Your task to perform on an android device: turn off priority inbox in the gmail app Image 0: 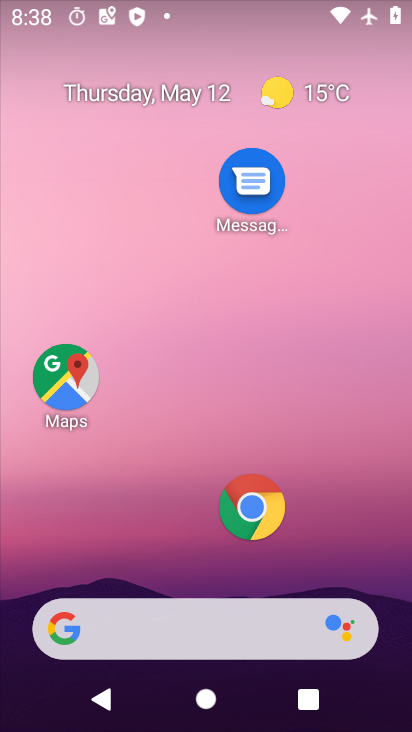
Step 0: drag from (160, 589) to (196, 47)
Your task to perform on an android device: turn off priority inbox in the gmail app Image 1: 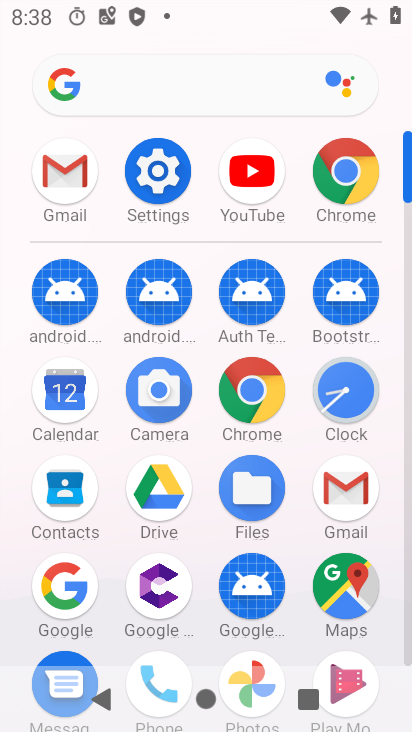
Step 1: click (355, 494)
Your task to perform on an android device: turn off priority inbox in the gmail app Image 2: 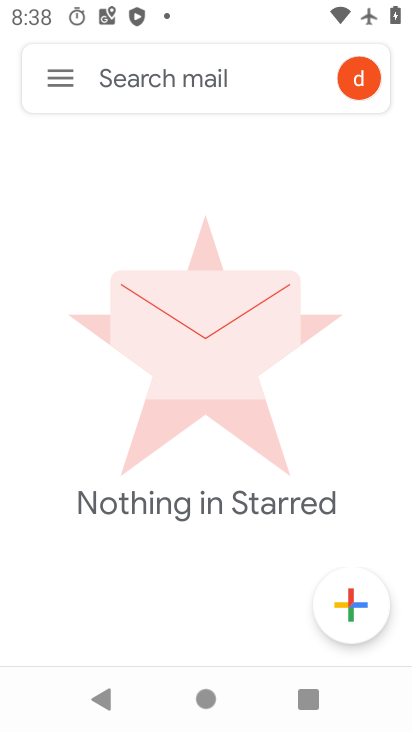
Step 2: click (67, 80)
Your task to perform on an android device: turn off priority inbox in the gmail app Image 3: 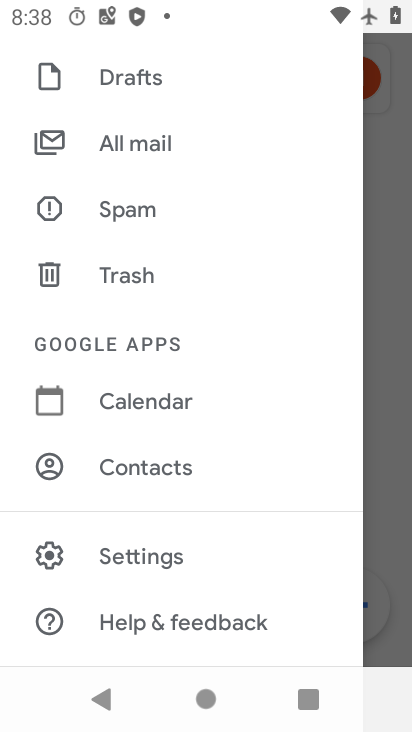
Step 3: click (147, 559)
Your task to perform on an android device: turn off priority inbox in the gmail app Image 4: 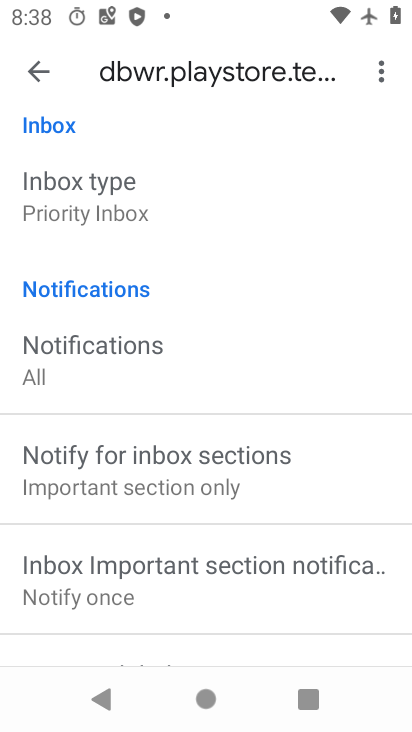
Step 4: click (95, 216)
Your task to perform on an android device: turn off priority inbox in the gmail app Image 5: 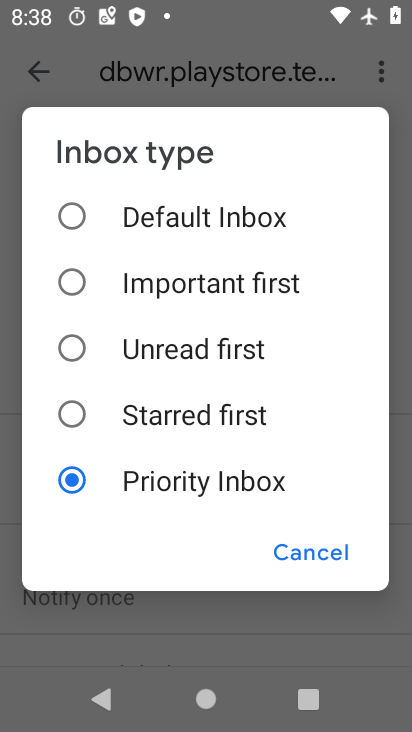
Step 5: click (153, 213)
Your task to perform on an android device: turn off priority inbox in the gmail app Image 6: 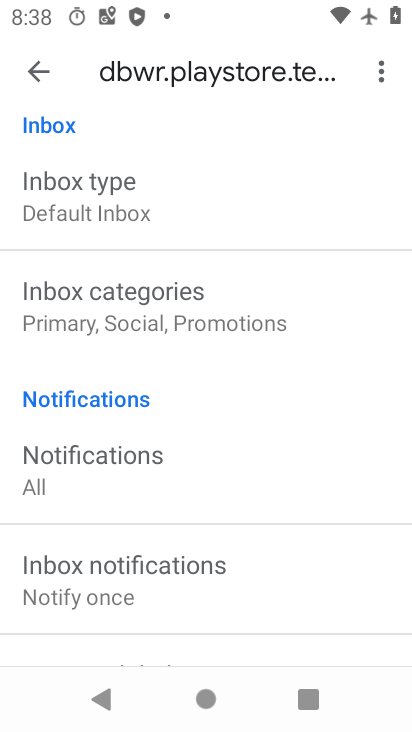
Step 6: task complete